Your task to perform on an android device: Do I have any events tomorrow? Image 0: 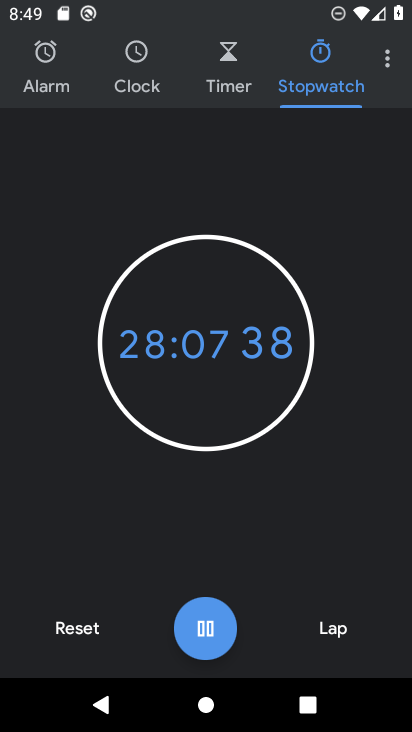
Step 0: press home button
Your task to perform on an android device: Do I have any events tomorrow? Image 1: 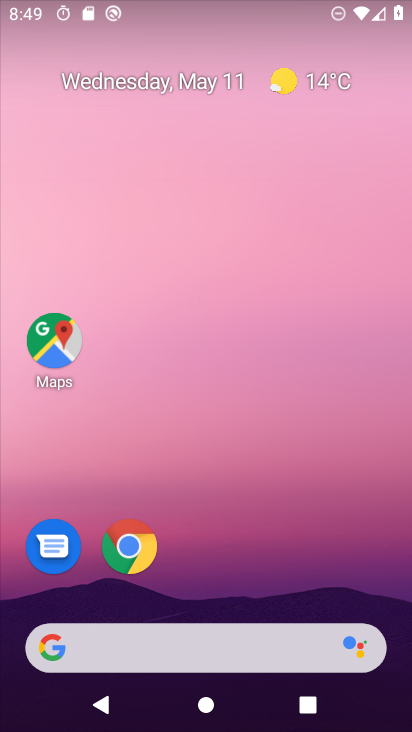
Step 1: drag from (230, 622) to (158, 38)
Your task to perform on an android device: Do I have any events tomorrow? Image 2: 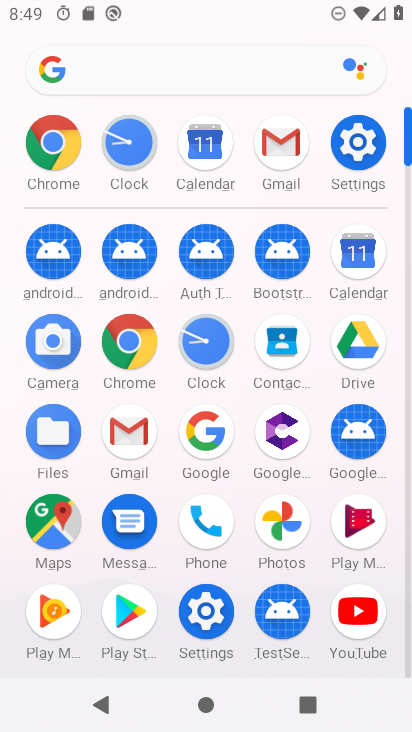
Step 2: click (369, 263)
Your task to perform on an android device: Do I have any events tomorrow? Image 3: 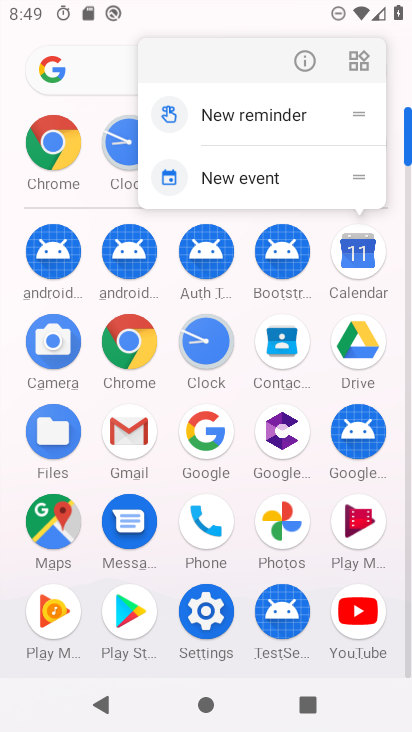
Step 3: click (340, 261)
Your task to perform on an android device: Do I have any events tomorrow? Image 4: 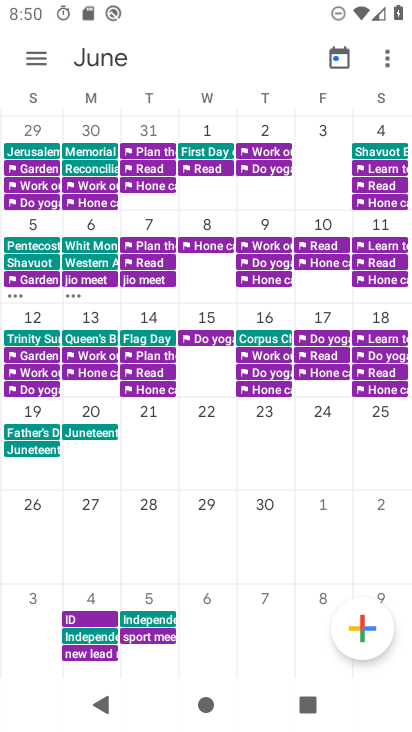
Step 4: drag from (120, 440) to (409, 559)
Your task to perform on an android device: Do I have any events tomorrow? Image 5: 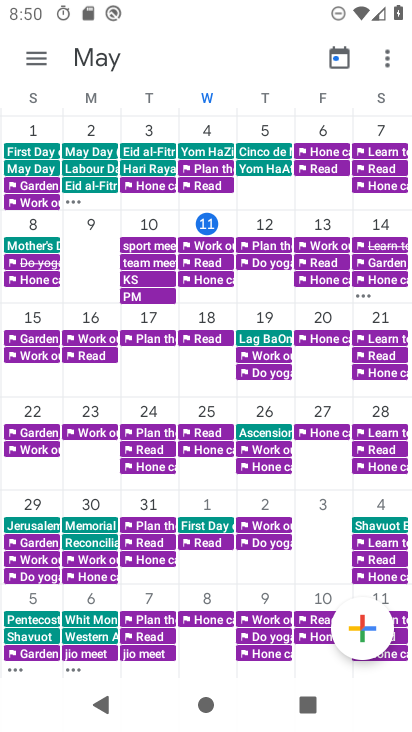
Step 5: click (41, 55)
Your task to perform on an android device: Do I have any events tomorrow? Image 6: 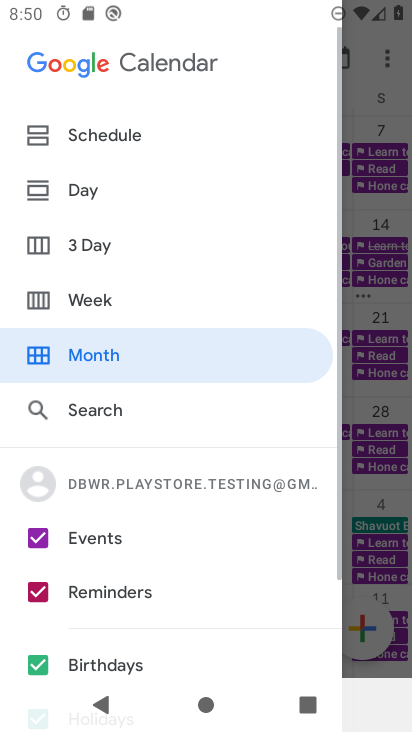
Step 6: click (75, 132)
Your task to perform on an android device: Do I have any events tomorrow? Image 7: 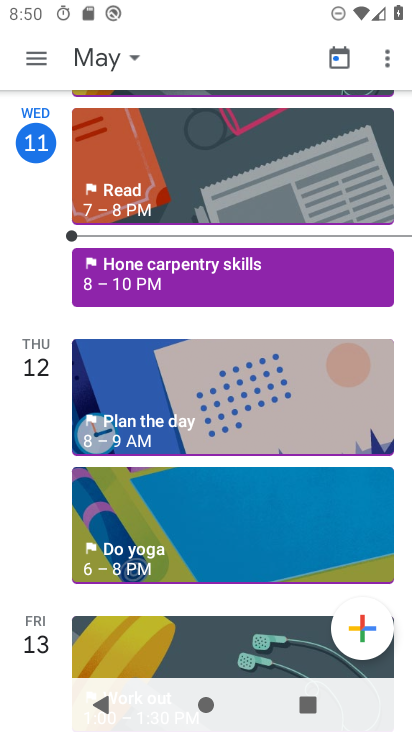
Step 7: task complete